Your task to perform on an android device: manage bookmarks in the chrome app Image 0: 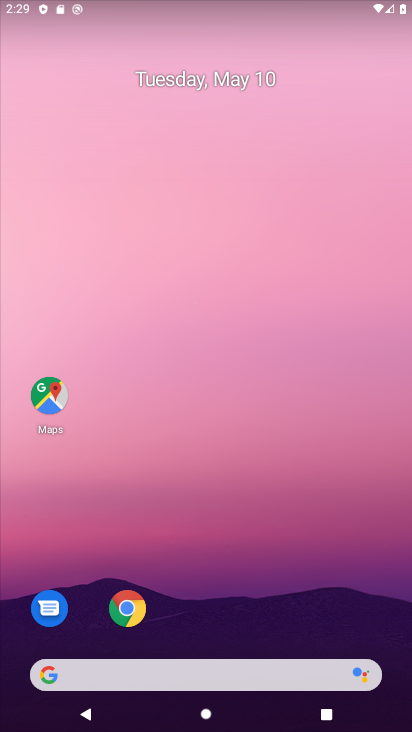
Step 0: click (129, 606)
Your task to perform on an android device: manage bookmarks in the chrome app Image 1: 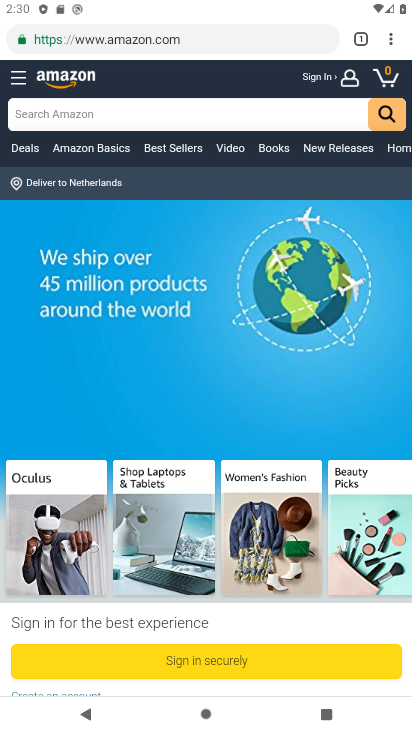
Step 1: click (389, 44)
Your task to perform on an android device: manage bookmarks in the chrome app Image 2: 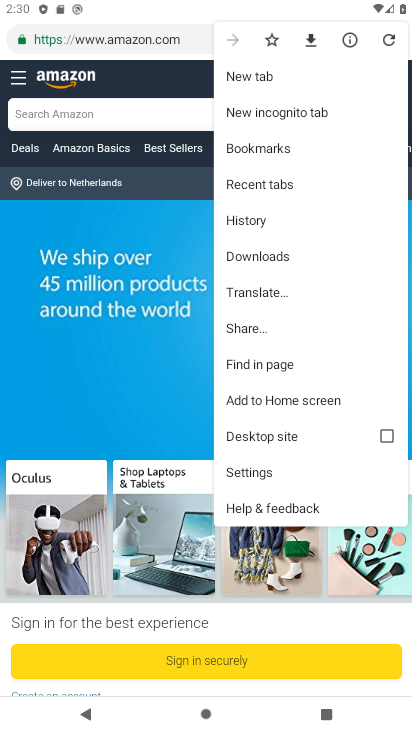
Step 2: click (246, 145)
Your task to perform on an android device: manage bookmarks in the chrome app Image 3: 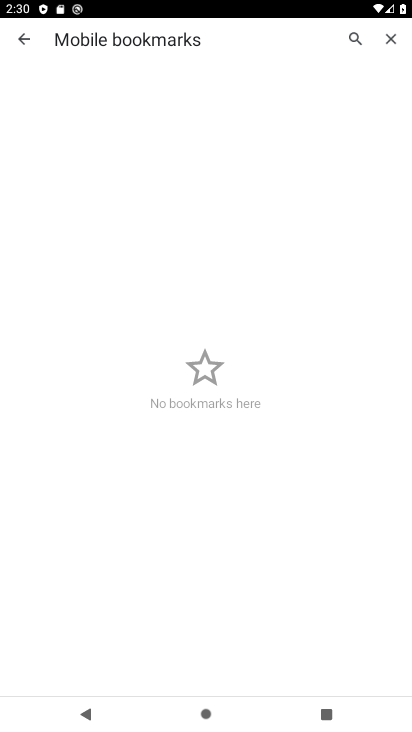
Step 3: task complete